Your task to perform on an android device: allow cookies in the chrome app Image 0: 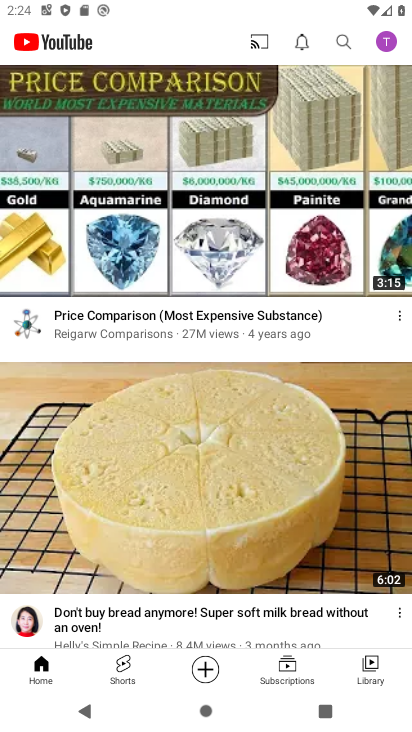
Step 0: press back button
Your task to perform on an android device: allow cookies in the chrome app Image 1: 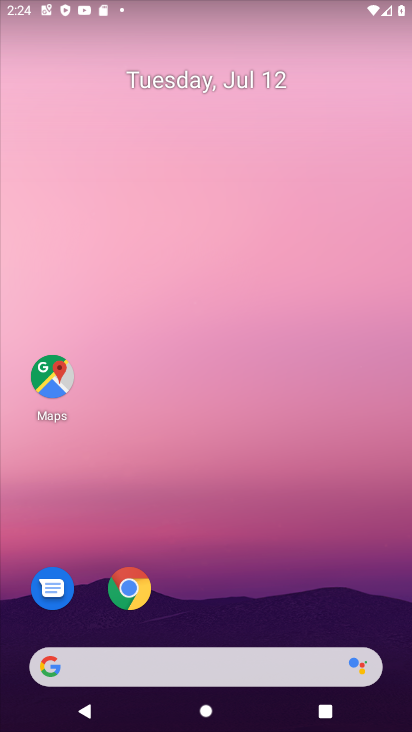
Step 1: click (137, 605)
Your task to perform on an android device: allow cookies in the chrome app Image 2: 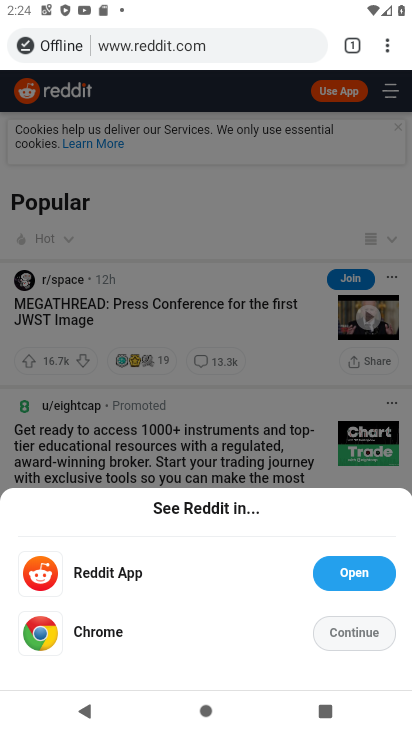
Step 2: drag from (395, 42) to (244, 508)
Your task to perform on an android device: allow cookies in the chrome app Image 3: 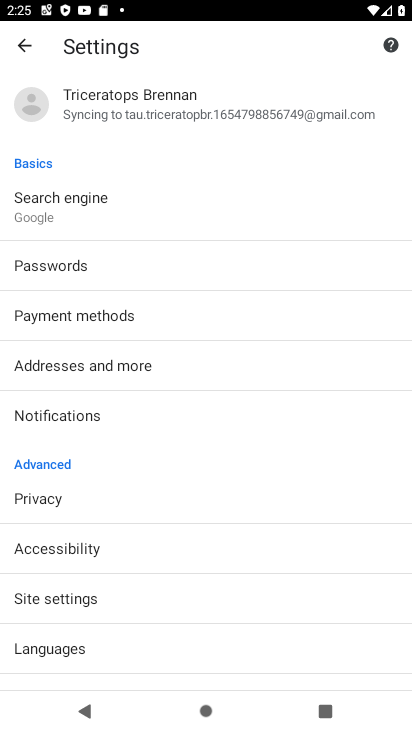
Step 3: click (67, 597)
Your task to perform on an android device: allow cookies in the chrome app Image 4: 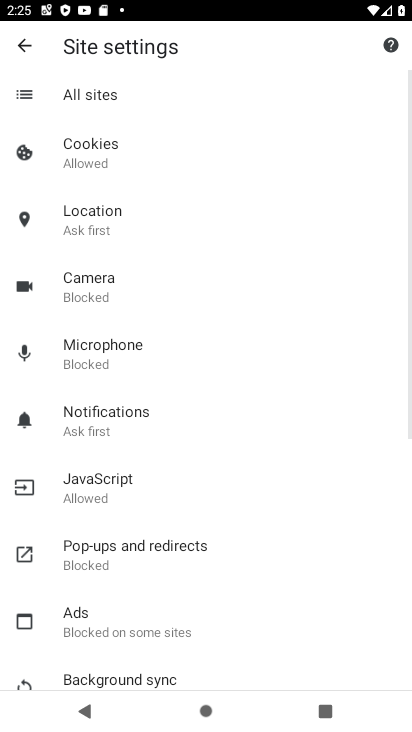
Step 4: click (175, 149)
Your task to perform on an android device: allow cookies in the chrome app Image 5: 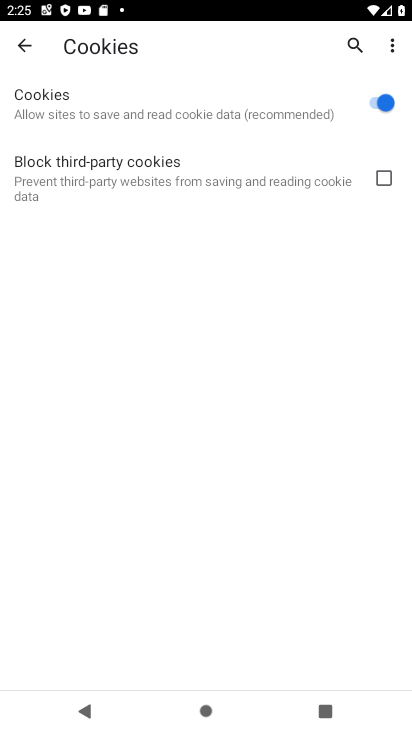
Step 5: task complete